Your task to perform on an android device: remove spam from my inbox in the gmail app Image 0: 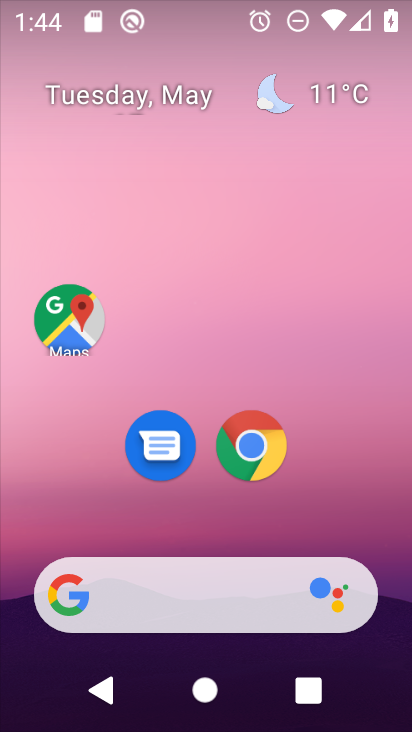
Step 0: drag from (378, 529) to (308, 100)
Your task to perform on an android device: remove spam from my inbox in the gmail app Image 1: 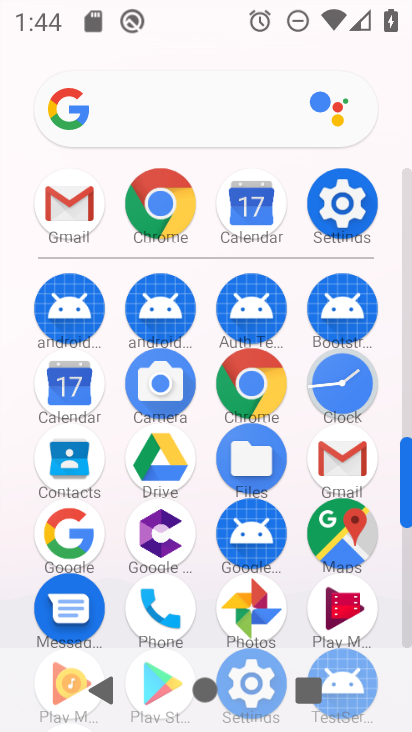
Step 1: click (338, 464)
Your task to perform on an android device: remove spam from my inbox in the gmail app Image 2: 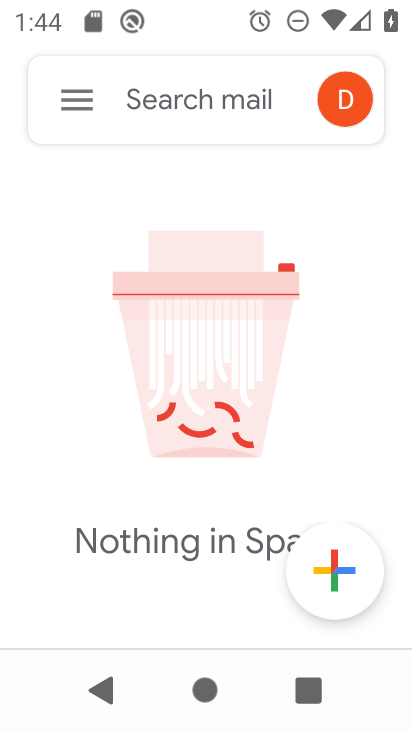
Step 2: click (69, 101)
Your task to perform on an android device: remove spam from my inbox in the gmail app Image 3: 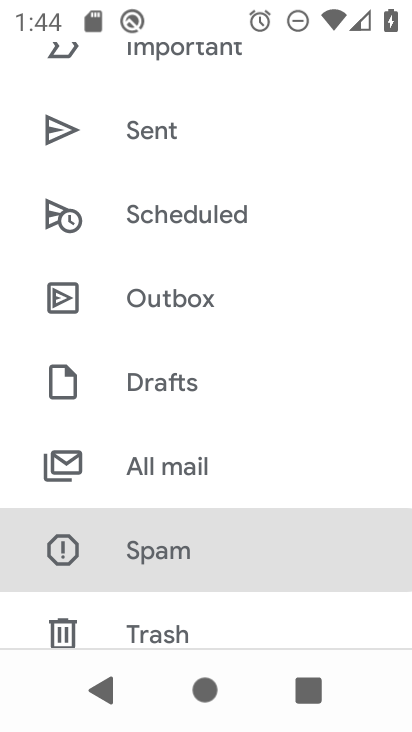
Step 3: click (182, 557)
Your task to perform on an android device: remove spam from my inbox in the gmail app Image 4: 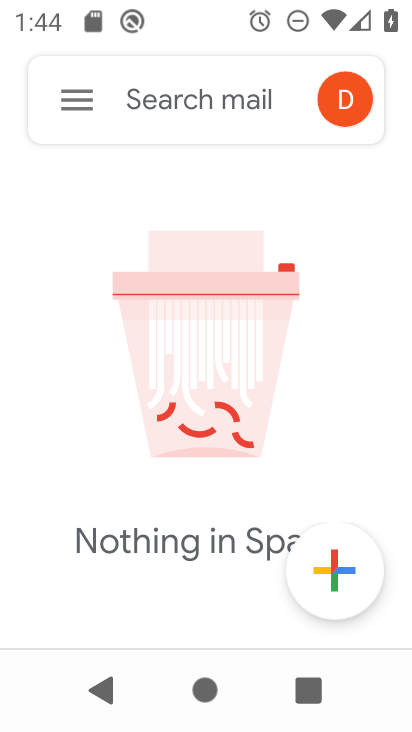
Step 4: task complete